Your task to perform on an android device: Go to Yahoo.com Image 0: 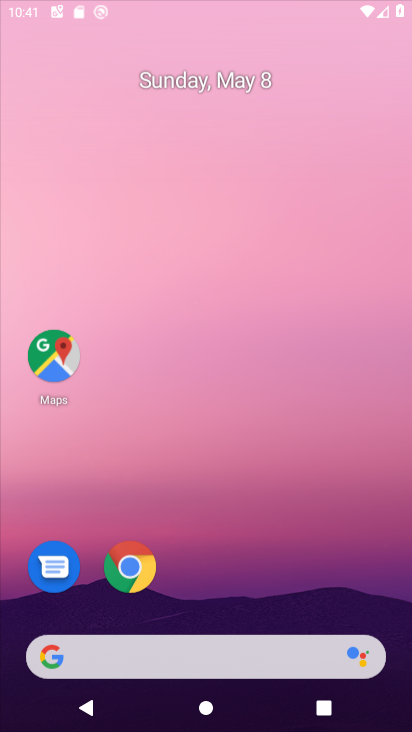
Step 0: click (278, 191)
Your task to perform on an android device: Go to Yahoo.com Image 1: 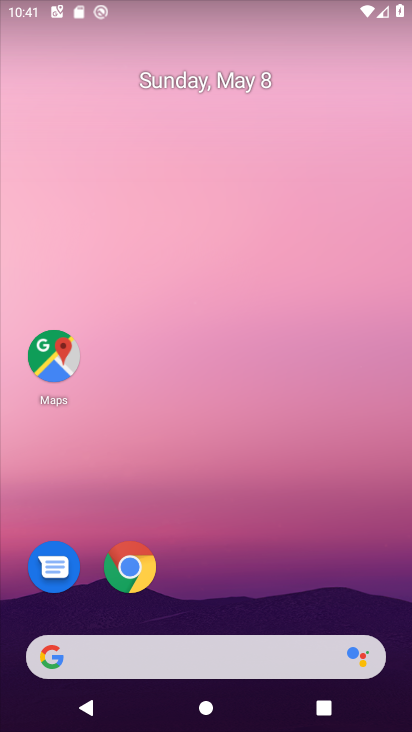
Step 1: click (128, 584)
Your task to perform on an android device: Go to Yahoo.com Image 2: 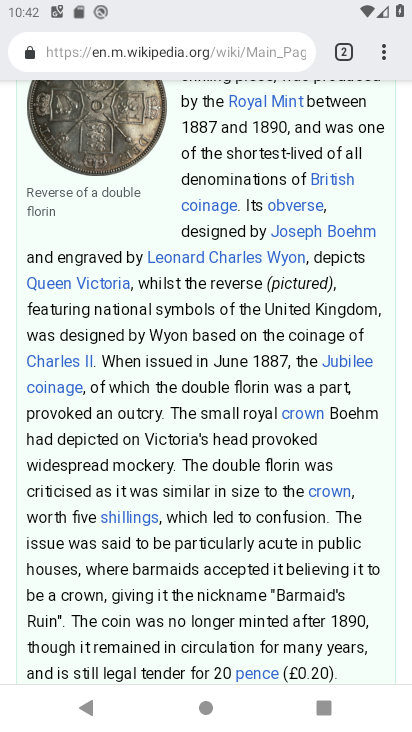
Step 2: click (345, 52)
Your task to perform on an android device: Go to Yahoo.com Image 3: 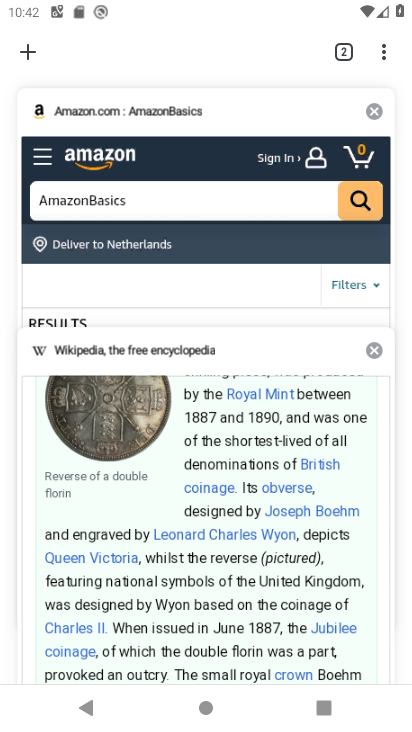
Step 3: click (375, 116)
Your task to perform on an android device: Go to Yahoo.com Image 4: 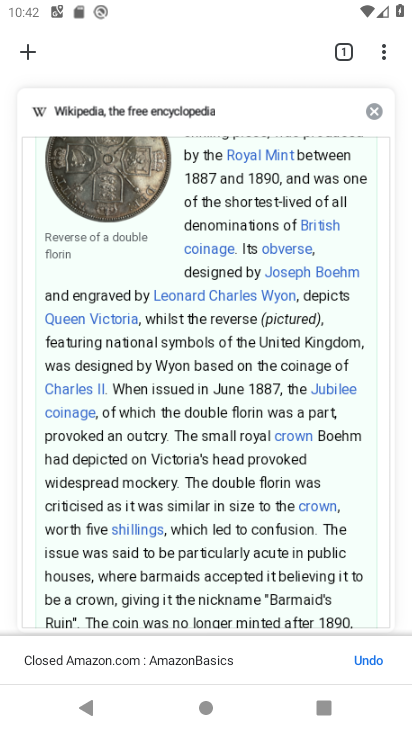
Step 4: click (376, 116)
Your task to perform on an android device: Go to Yahoo.com Image 5: 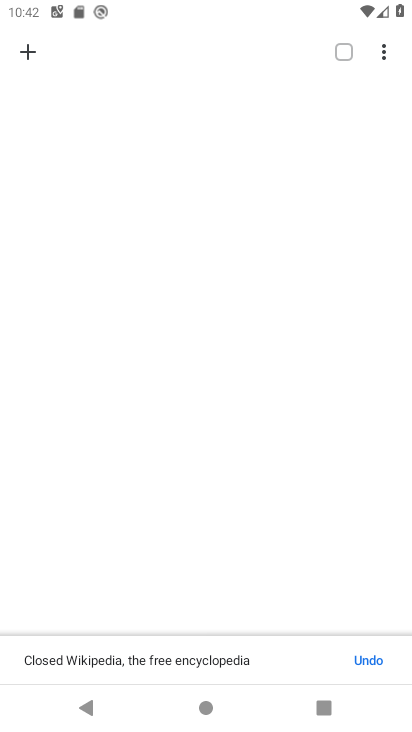
Step 5: click (31, 56)
Your task to perform on an android device: Go to Yahoo.com Image 6: 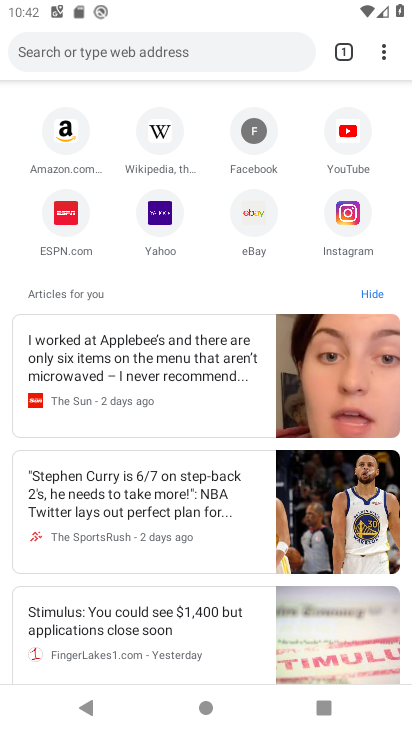
Step 6: click (172, 222)
Your task to perform on an android device: Go to Yahoo.com Image 7: 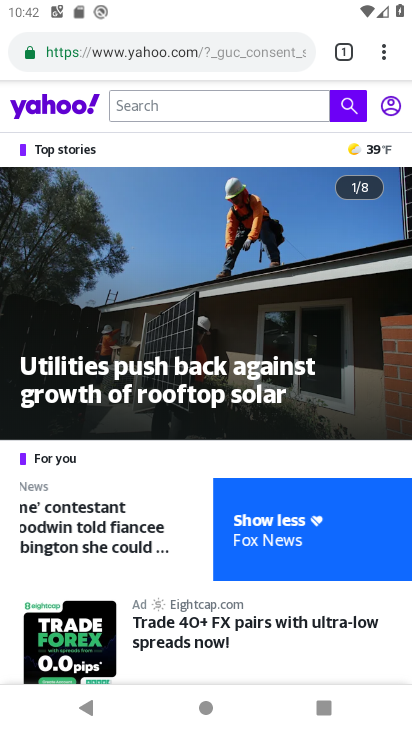
Step 7: task complete